Your task to perform on an android device: add a label to a message in the gmail app Image 0: 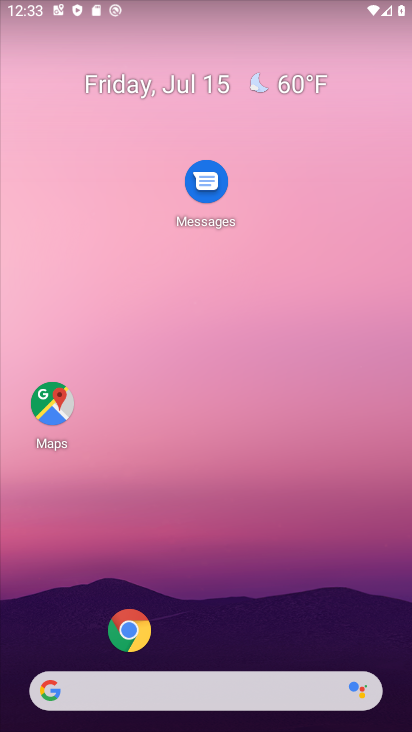
Step 0: drag from (48, 693) to (316, 45)
Your task to perform on an android device: add a label to a message in the gmail app Image 1: 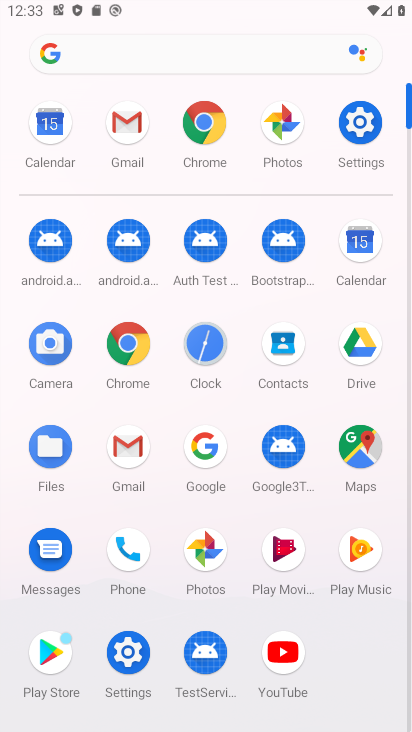
Step 1: click (141, 455)
Your task to perform on an android device: add a label to a message in the gmail app Image 2: 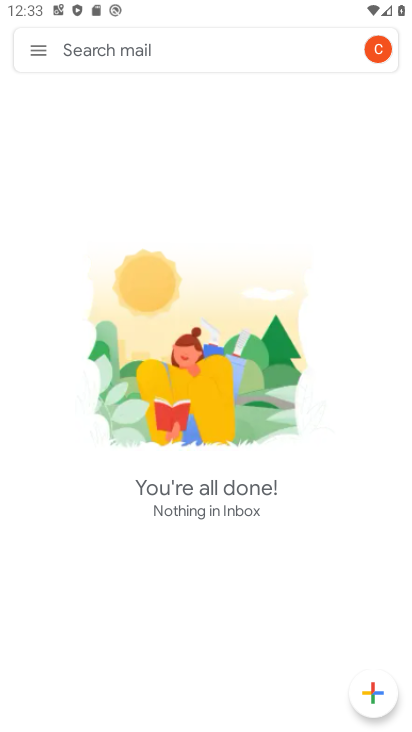
Step 2: click (38, 56)
Your task to perform on an android device: add a label to a message in the gmail app Image 3: 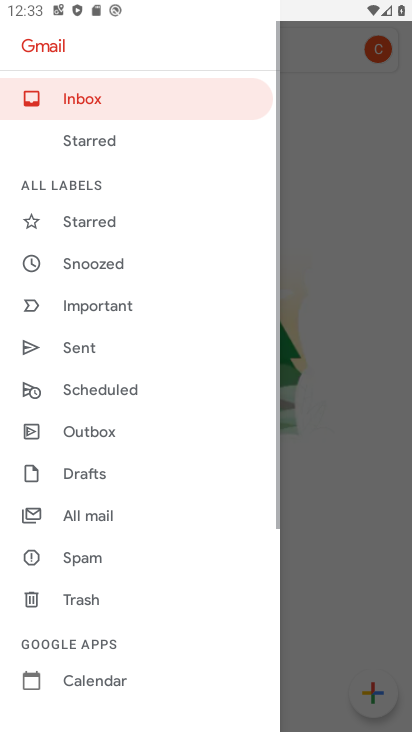
Step 3: click (120, 102)
Your task to perform on an android device: add a label to a message in the gmail app Image 4: 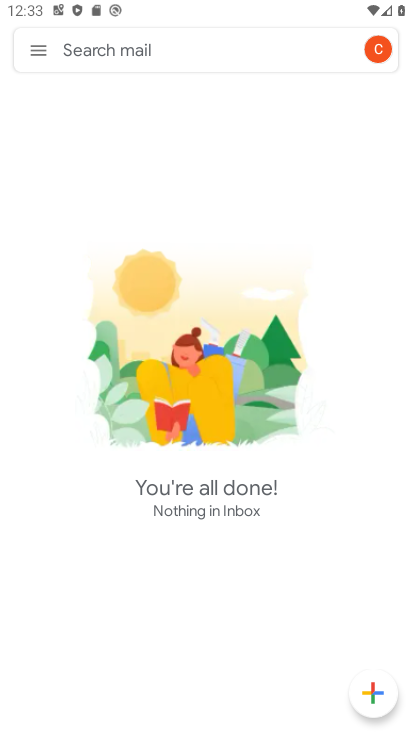
Step 4: task complete